Your task to perform on an android device: add a contact in the contacts app Image 0: 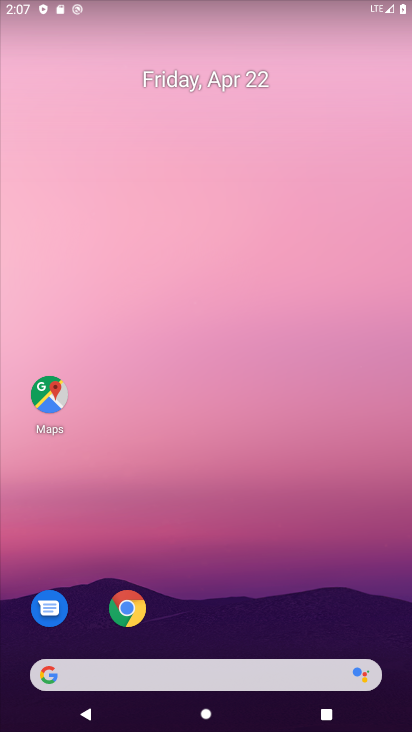
Step 0: drag from (240, 678) to (288, 293)
Your task to perform on an android device: add a contact in the contacts app Image 1: 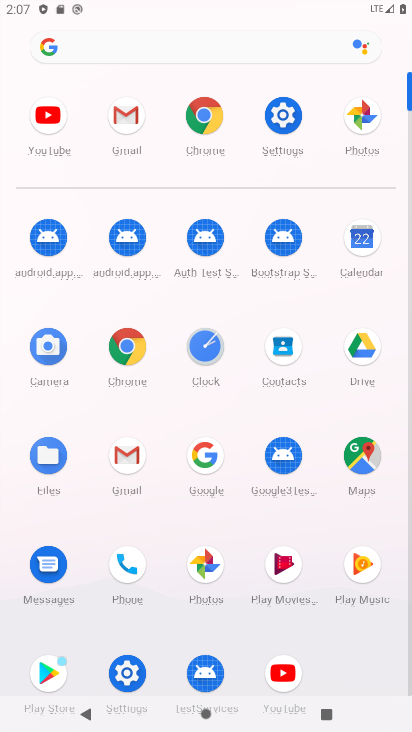
Step 1: click (124, 576)
Your task to perform on an android device: add a contact in the contacts app Image 2: 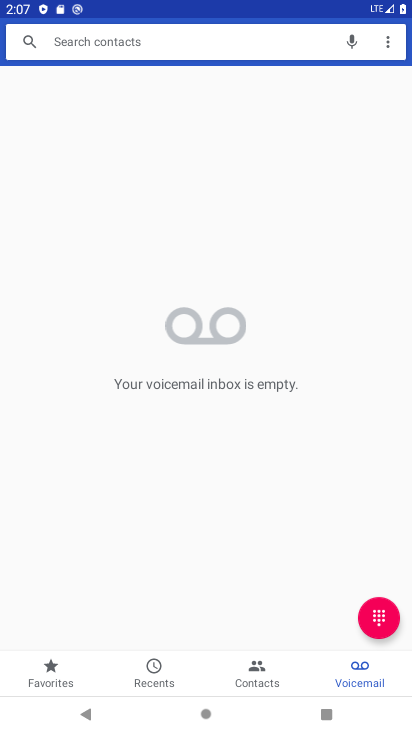
Step 2: click (262, 680)
Your task to perform on an android device: add a contact in the contacts app Image 3: 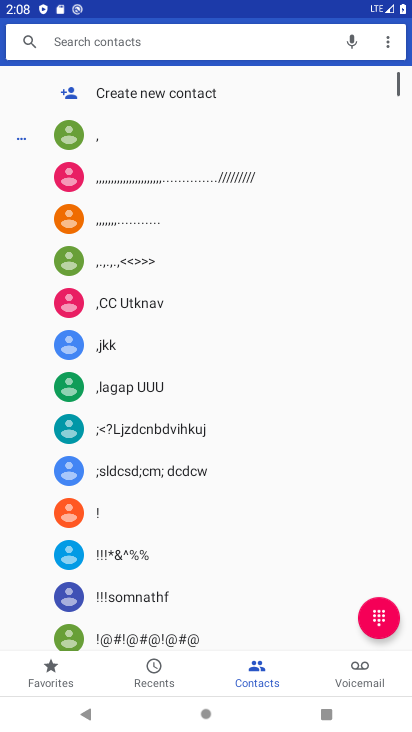
Step 3: task complete